Your task to perform on an android device: Open location settings Image 0: 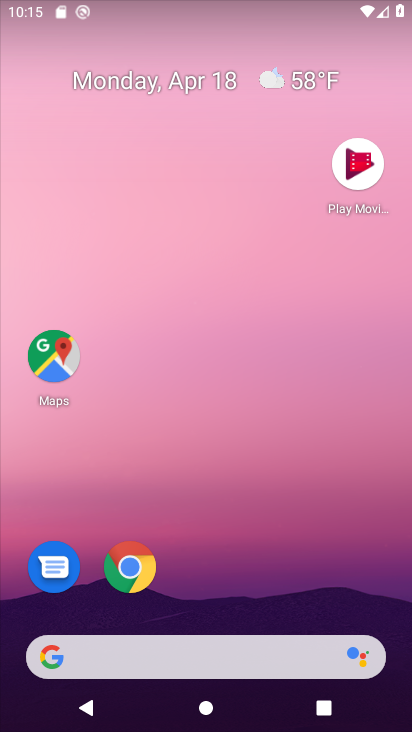
Step 0: drag from (191, 580) to (350, 400)
Your task to perform on an android device: Open location settings Image 1: 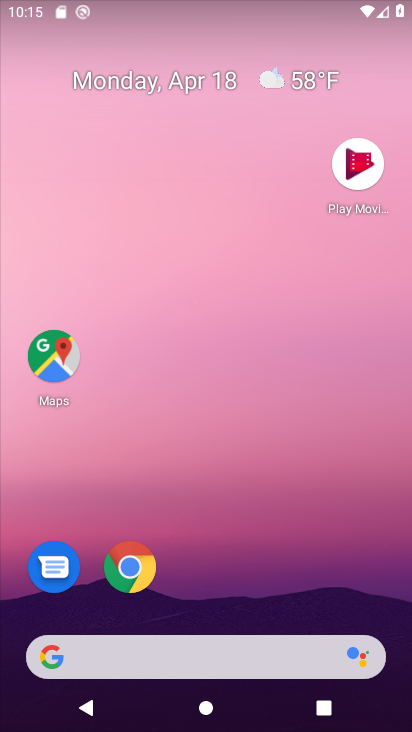
Step 1: click (270, 217)
Your task to perform on an android device: Open location settings Image 2: 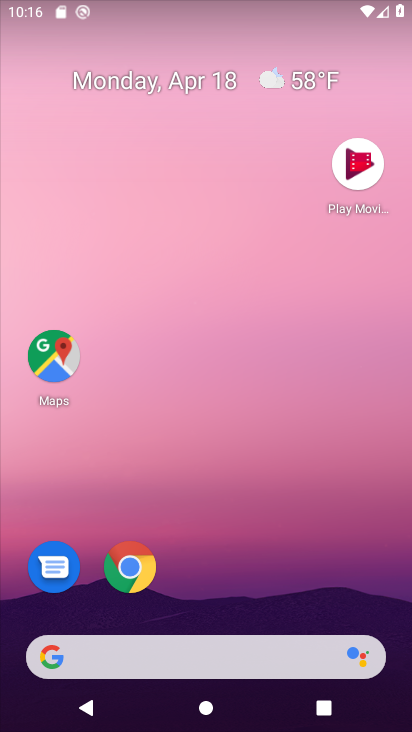
Step 2: drag from (253, 428) to (356, 252)
Your task to perform on an android device: Open location settings Image 3: 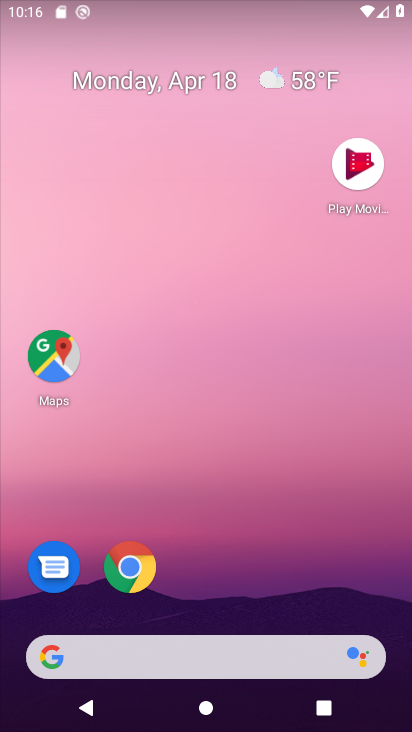
Step 3: drag from (181, 582) to (311, 20)
Your task to perform on an android device: Open location settings Image 4: 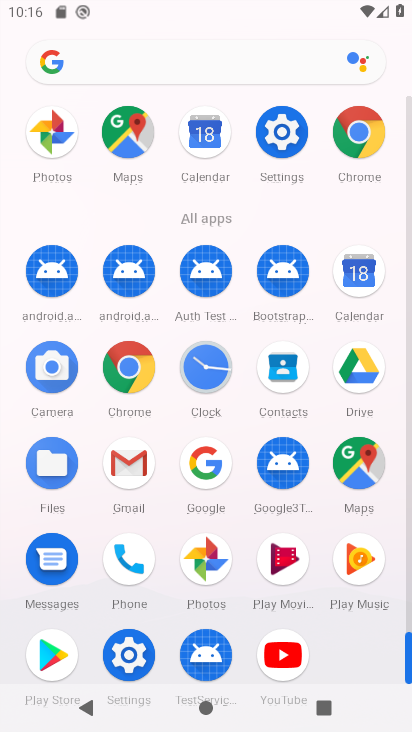
Step 4: click (280, 188)
Your task to perform on an android device: Open location settings Image 5: 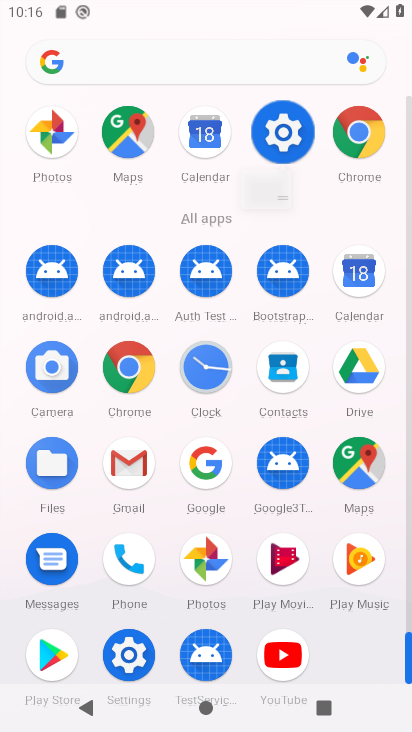
Step 5: click (293, 143)
Your task to perform on an android device: Open location settings Image 6: 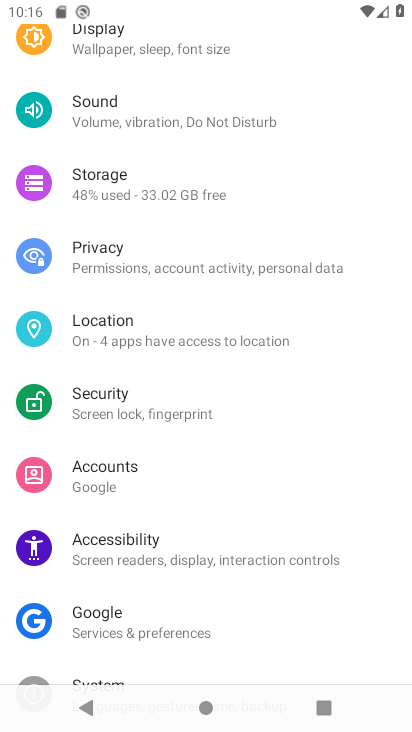
Step 6: click (161, 338)
Your task to perform on an android device: Open location settings Image 7: 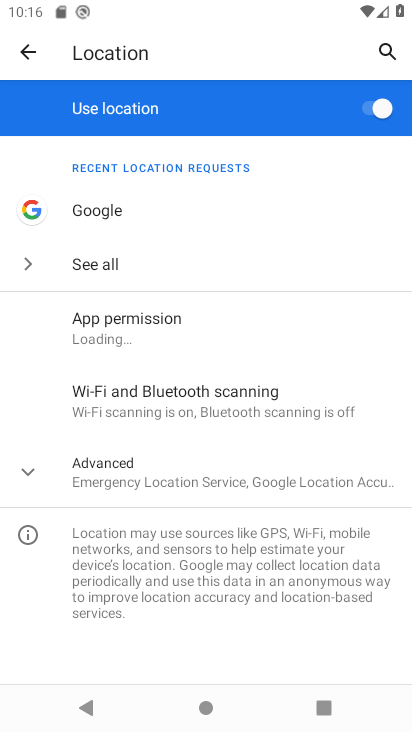
Step 7: task complete